Your task to perform on an android device: Open calendar and show me the fourth week of next month Image 0: 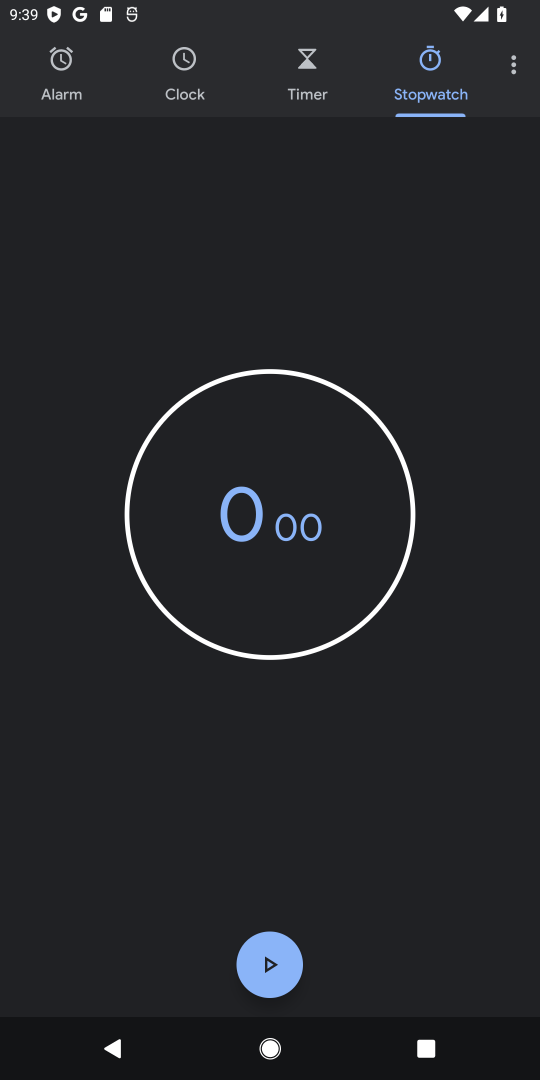
Step 0: press home button
Your task to perform on an android device: Open calendar and show me the fourth week of next month Image 1: 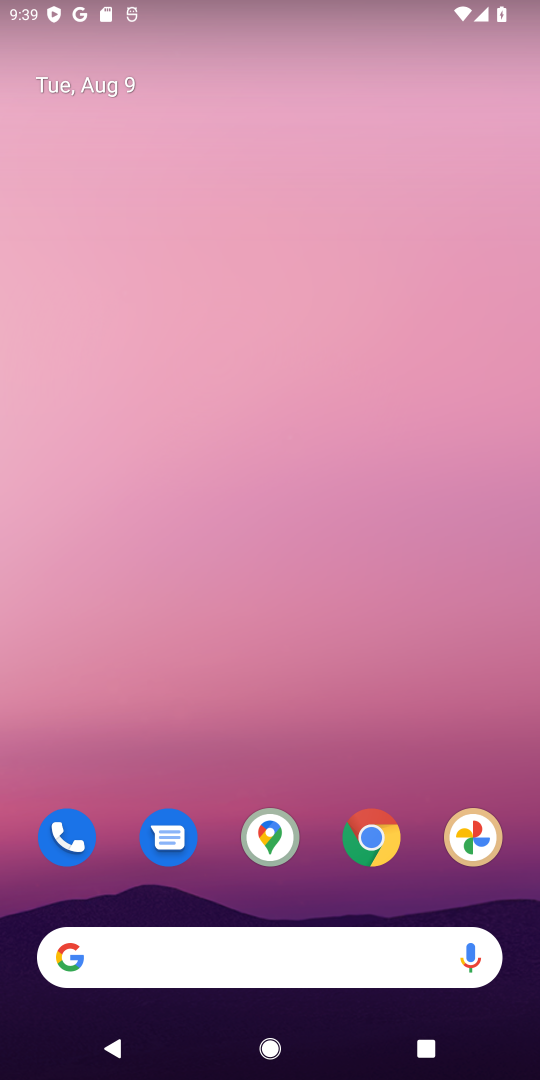
Step 1: drag from (319, 904) to (289, 235)
Your task to perform on an android device: Open calendar and show me the fourth week of next month Image 2: 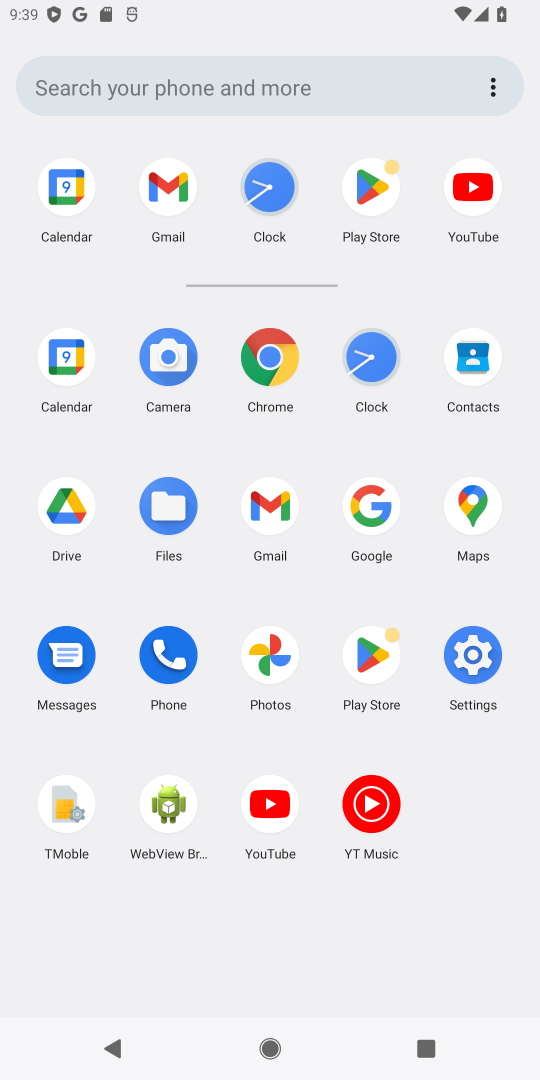
Step 2: click (67, 359)
Your task to perform on an android device: Open calendar and show me the fourth week of next month Image 3: 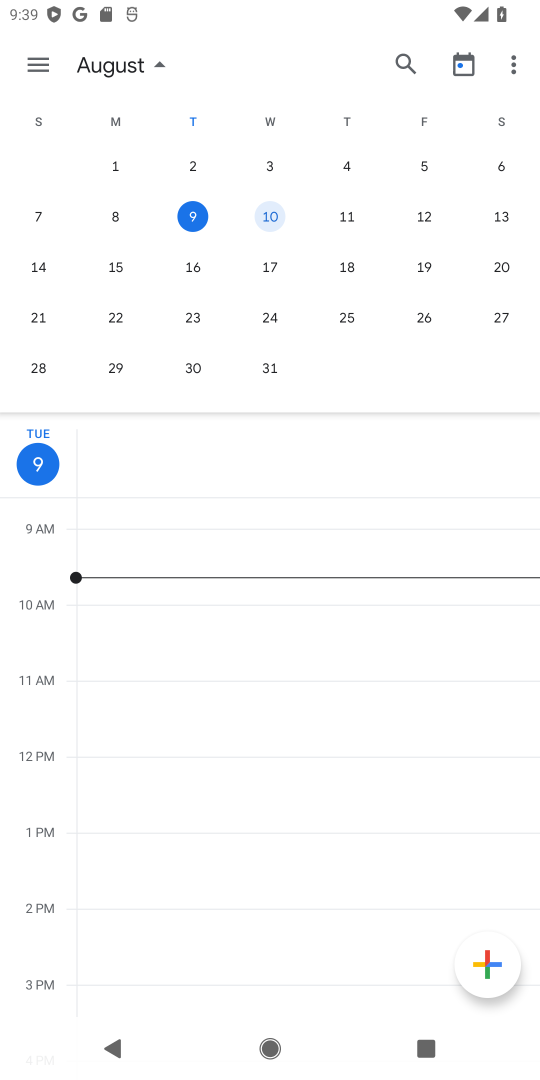
Step 3: click (114, 316)
Your task to perform on an android device: Open calendar and show me the fourth week of next month Image 4: 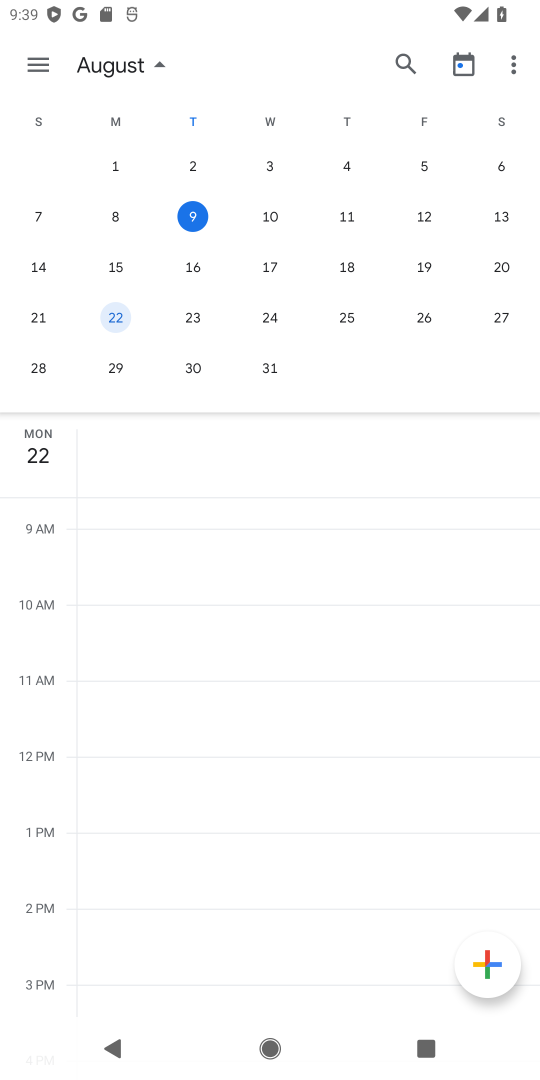
Step 4: click (120, 315)
Your task to perform on an android device: Open calendar and show me the fourth week of next month Image 5: 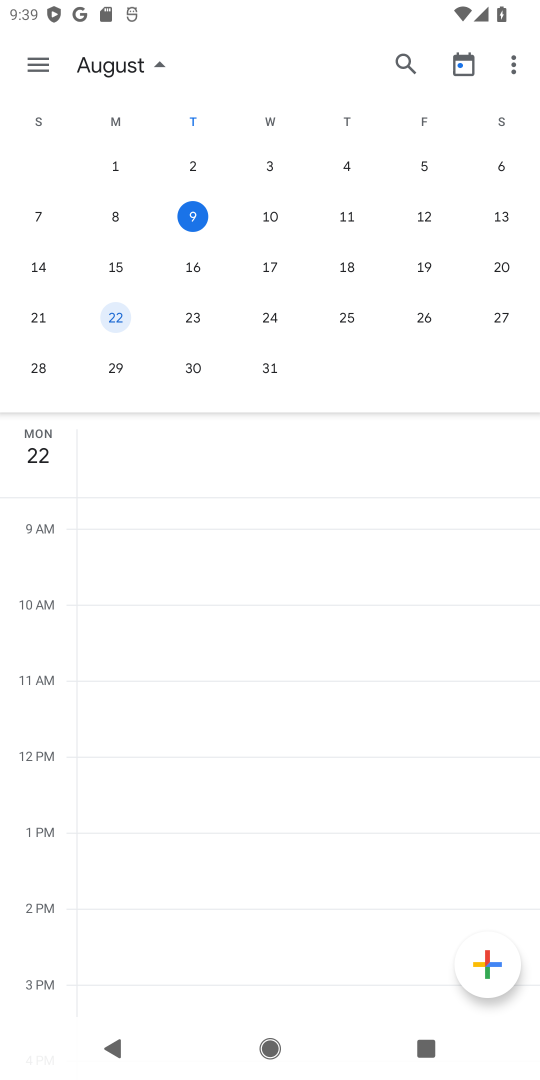
Step 5: drag from (502, 253) to (116, 232)
Your task to perform on an android device: Open calendar and show me the fourth week of next month Image 6: 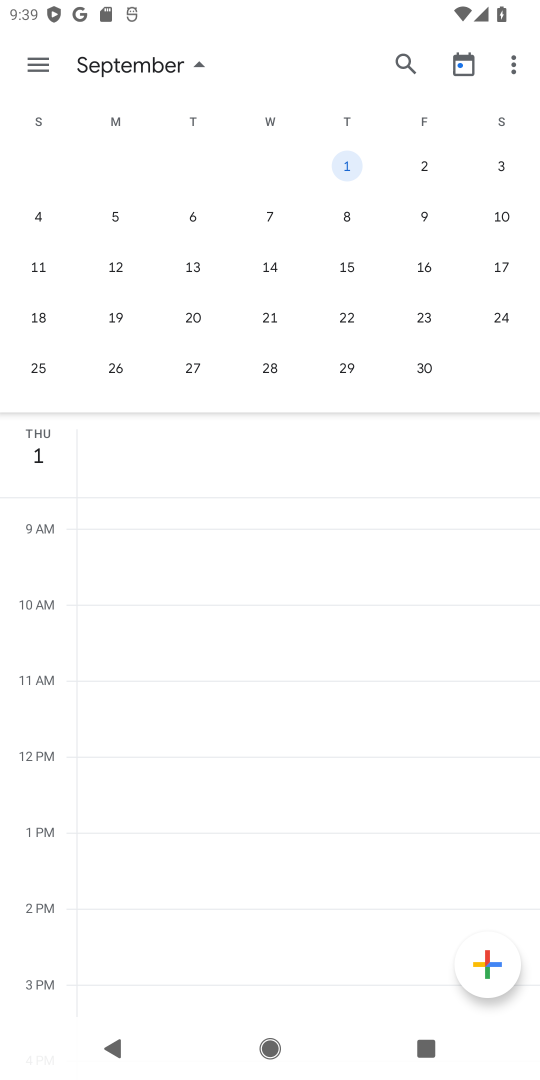
Step 6: click (118, 352)
Your task to perform on an android device: Open calendar and show me the fourth week of next month Image 7: 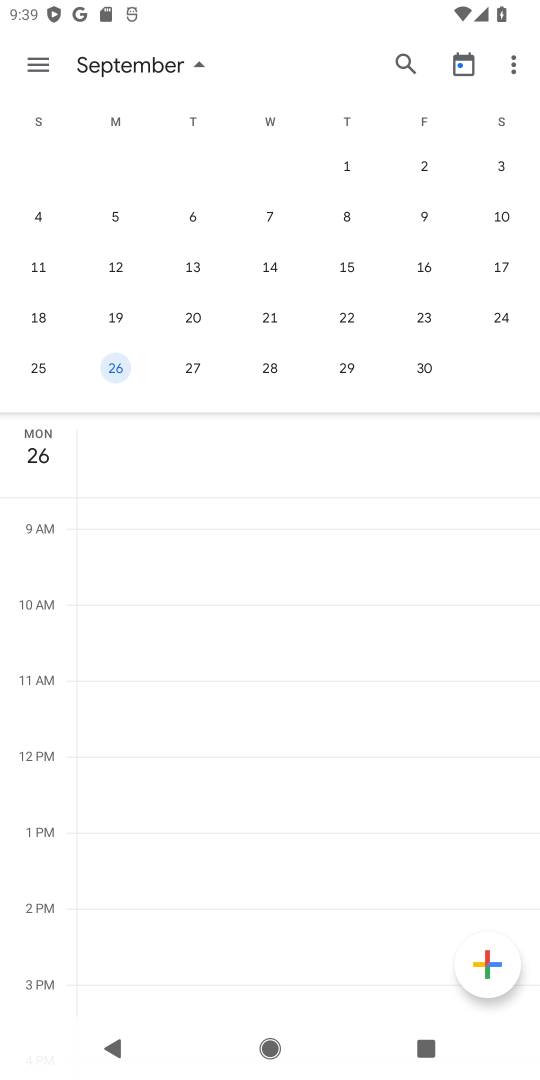
Step 7: click (30, 61)
Your task to perform on an android device: Open calendar and show me the fourth week of next month Image 8: 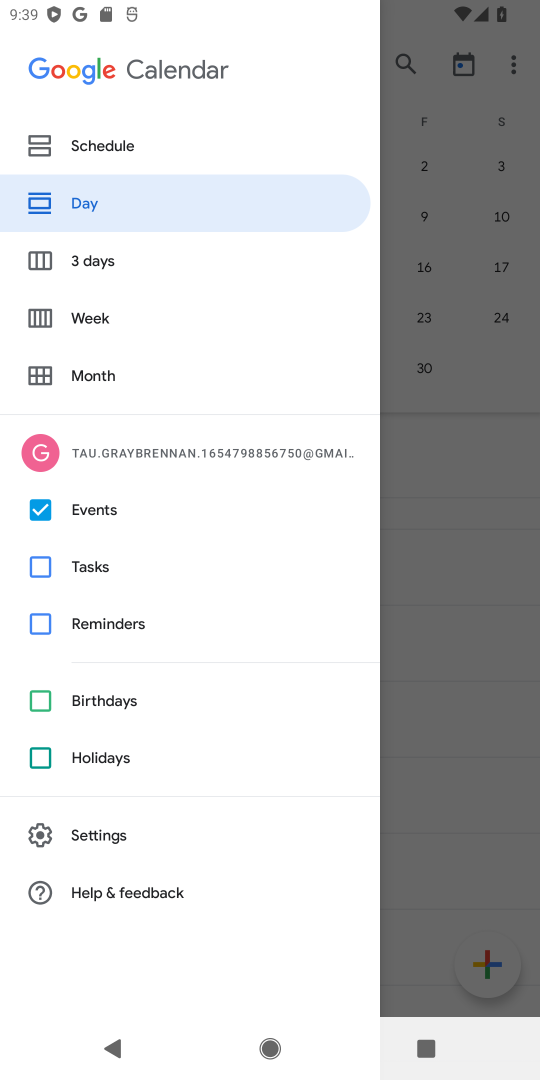
Step 8: click (84, 312)
Your task to perform on an android device: Open calendar and show me the fourth week of next month Image 9: 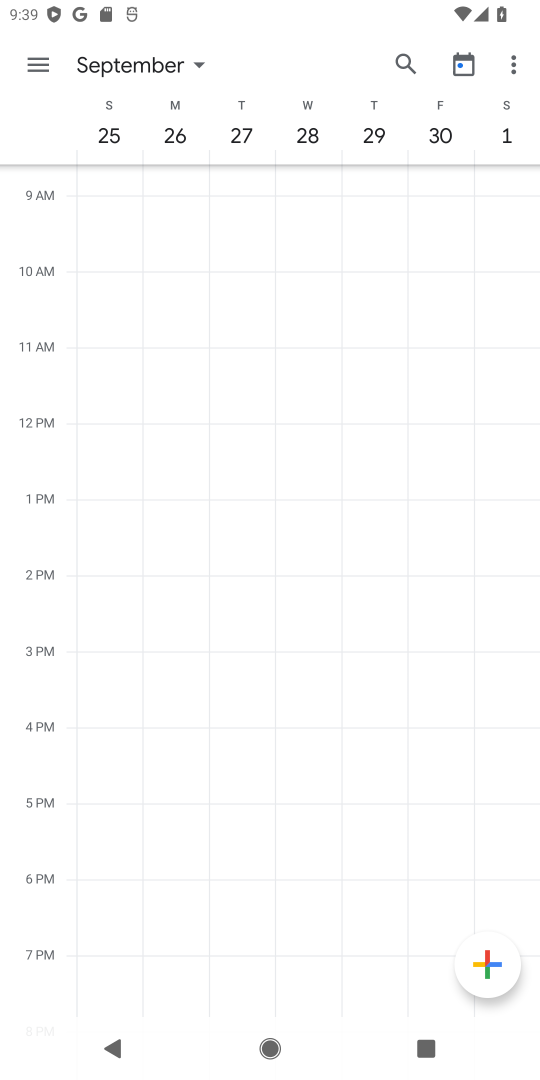
Step 9: task complete